Your task to perform on an android device: turn on notifications settings in the gmail app Image 0: 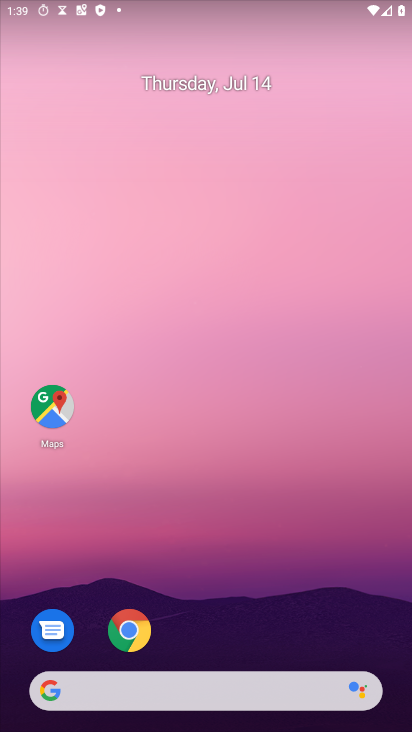
Step 0: drag from (227, 690) to (141, 471)
Your task to perform on an android device: turn on notifications settings in the gmail app Image 1: 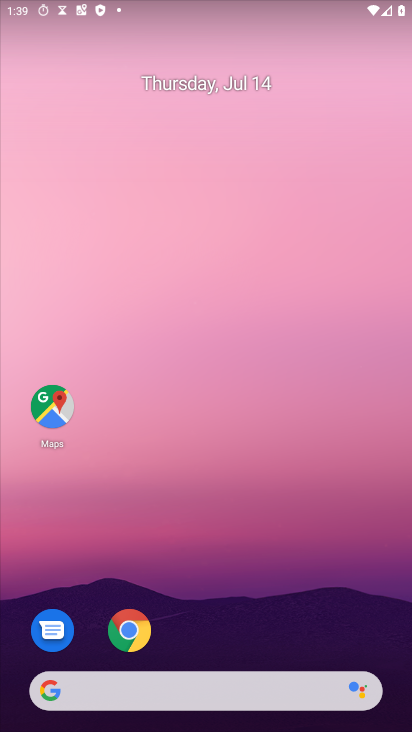
Step 1: drag from (208, 686) to (121, 233)
Your task to perform on an android device: turn on notifications settings in the gmail app Image 2: 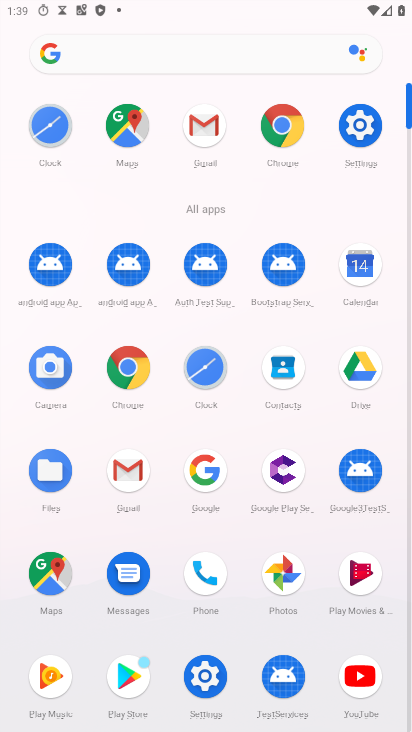
Step 2: click (131, 480)
Your task to perform on an android device: turn on notifications settings in the gmail app Image 3: 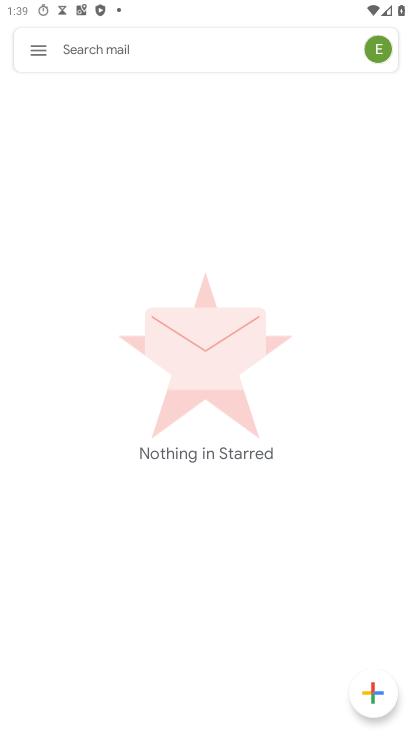
Step 3: click (29, 52)
Your task to perform on an android device: turn on notifications settings in the gmail app Image 4: 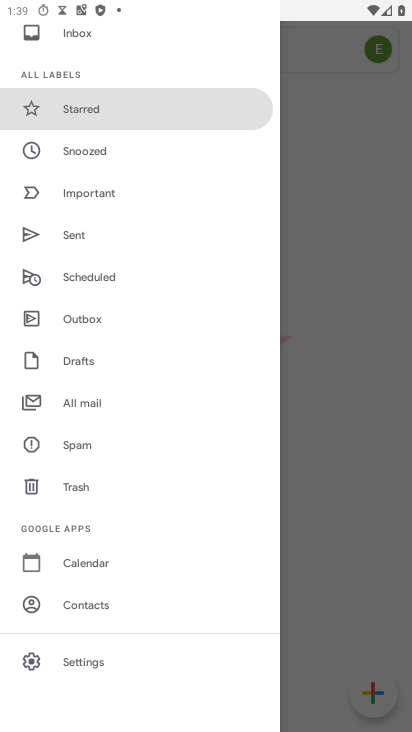
Step 4: click (64, 655)
Your task to perform on an android device: turn on notifications settings in the gmail app Image 5: 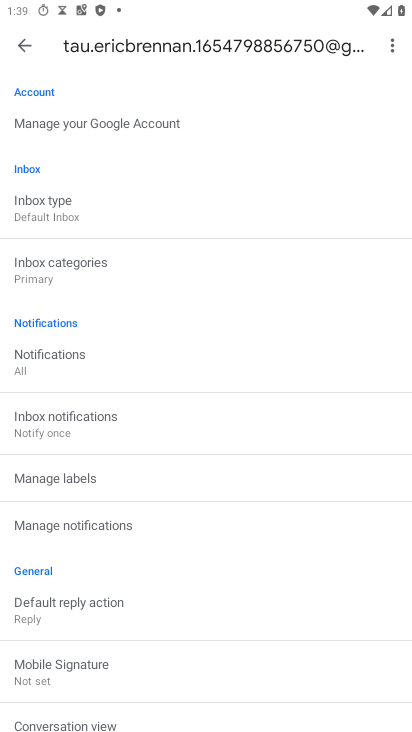
Step 5: click (124, 526)
Your task to perform on an android device: turn on notifications settings in the gmail app Image 6: 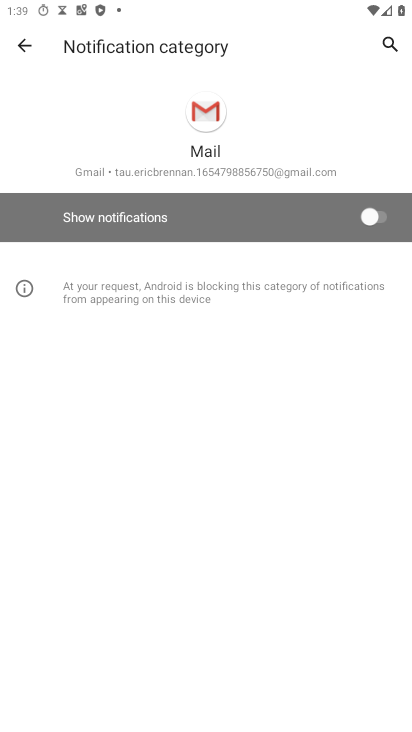
Step 6: click (371, 223)
Your task to perform on an android device: turn on notifications settings in the gmail app Image 7: 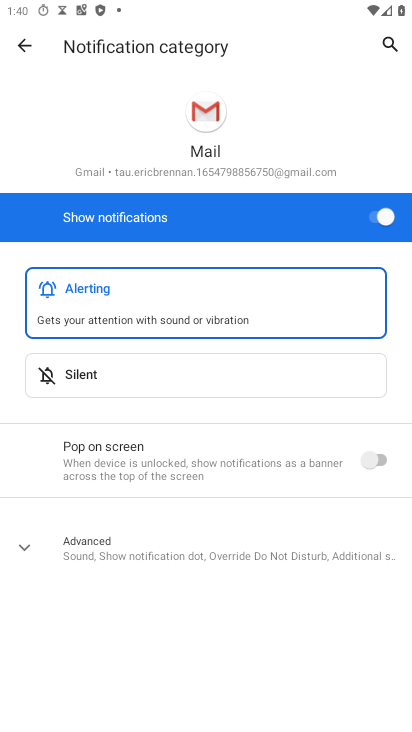
Step 7: task complete